Your task to perform on an android device: Play the last video I watched on Youtube Image 0: 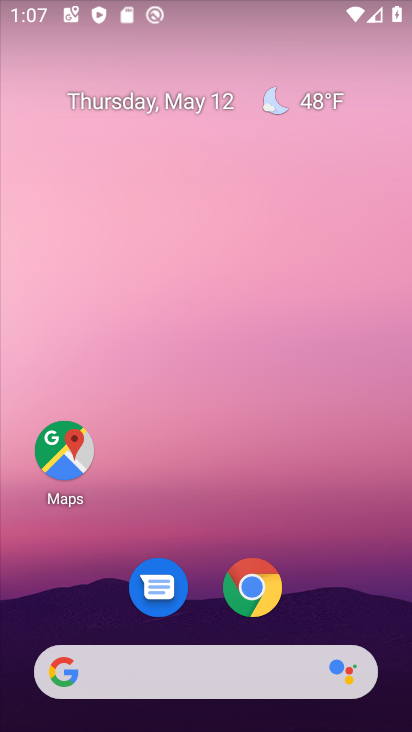
Step 0: drag from (244, 543) to (269, 188)
Your task to perform on an android device: Play the last video I watched on Youtube Image 1: 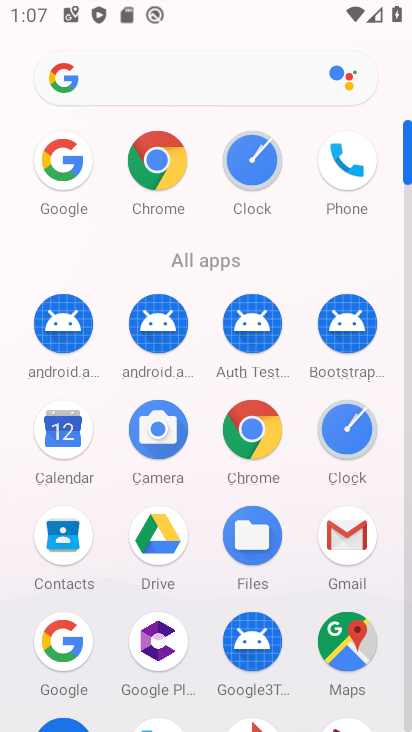
Step 1: drag from (296, 552) to (274, 168)
Your task to perform on an android device: Play the last video I watched on Youtube Image 2: 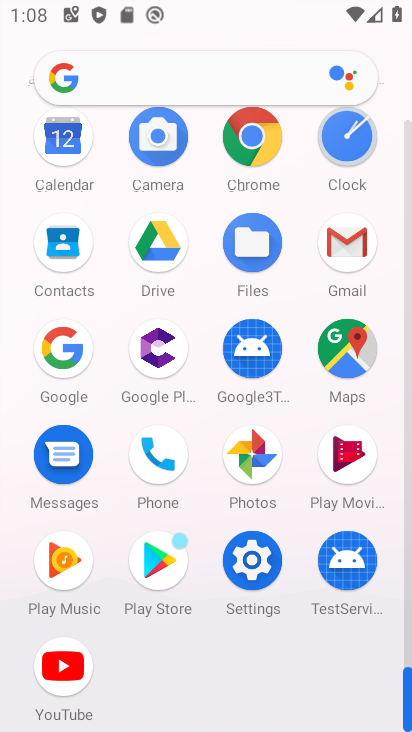
Step 2: click (55, 690)
Your task to perform on an android device: Play the last video I watched on Youtube Image 3: 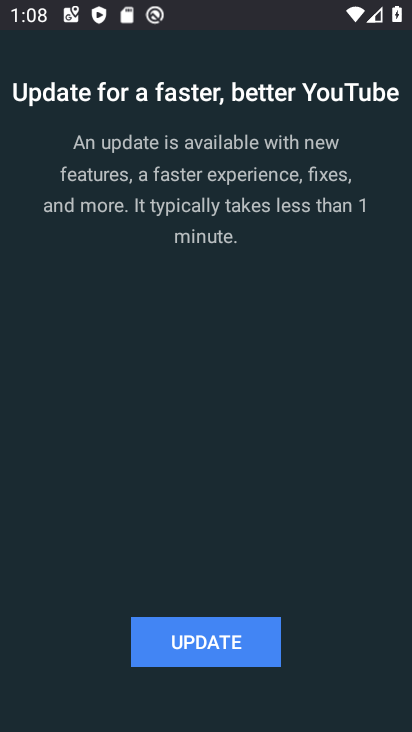
Step 3: task complete